Your task to perform on an android device: Show me productivity apps on the Play Store Image 0: 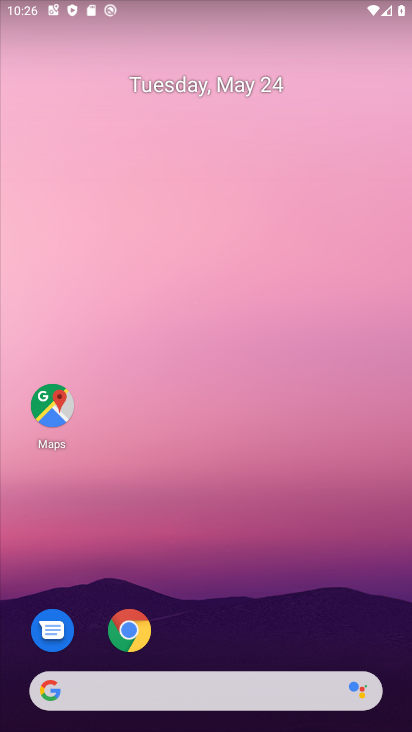
Step 0: press home button
Your task to perform on an android device: Show me productivity apps on the Play Store Image 1: 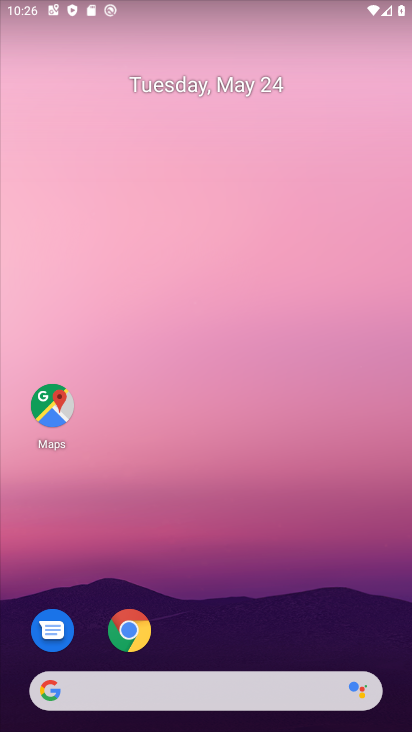
Step 1: drag from (211, 652) to (206, 91)
Your task to perform on an android device: Show me productivity apps on the Play Store Image 2: 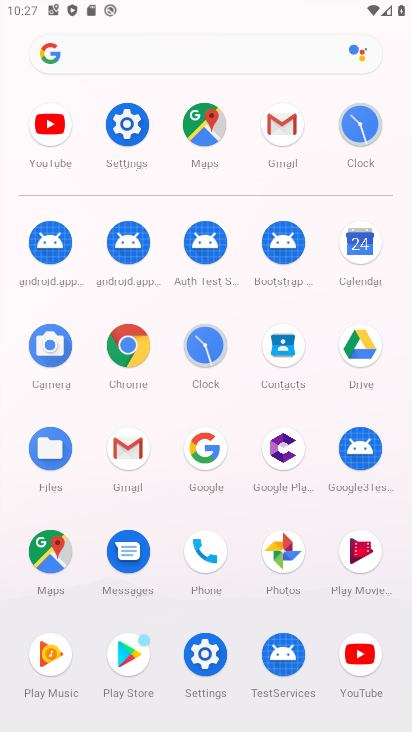
Step 2: click (124, 119)
Your task to perform on an android device: Show me productivity apps on the Play Store Image 3: 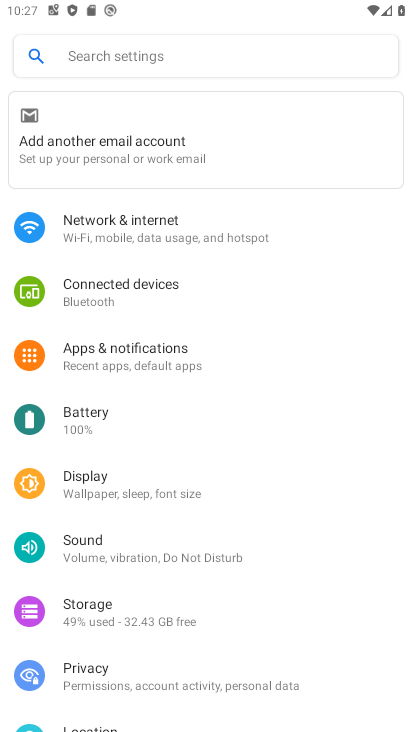
Step 3: press home button
Your task to perform on an android device: Show me productivity apps on the Play Store Image 4: 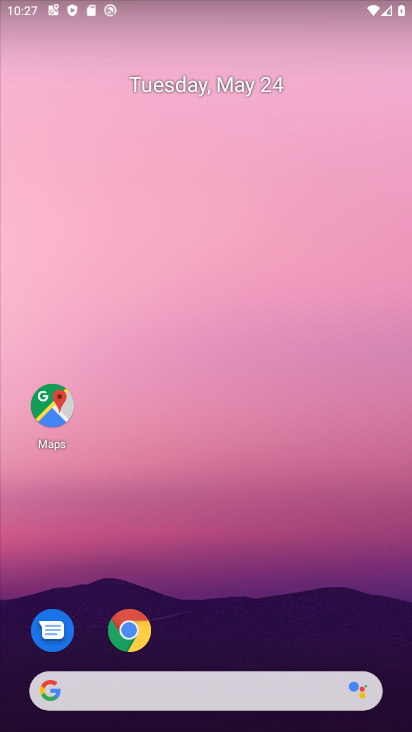
Step 4: drag from (214, 651) to (221, 85)
Your task to perform on an android device: Show me productivity apps on the Play Store Image 5: 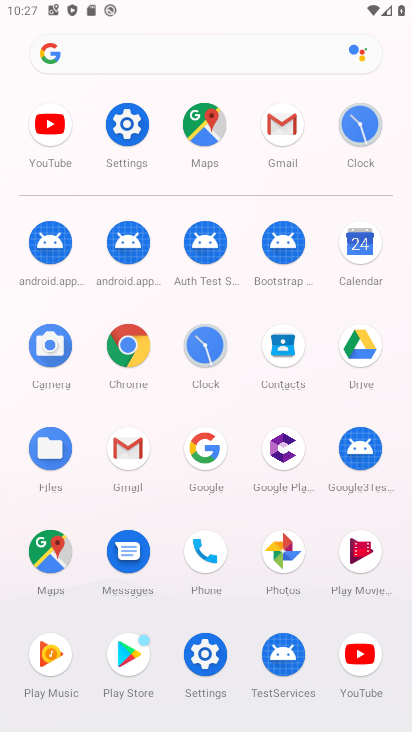
Step 5: click (125, 647)
Your task to perform on an android device: Show me productivity apps on the Play Store Image 6: 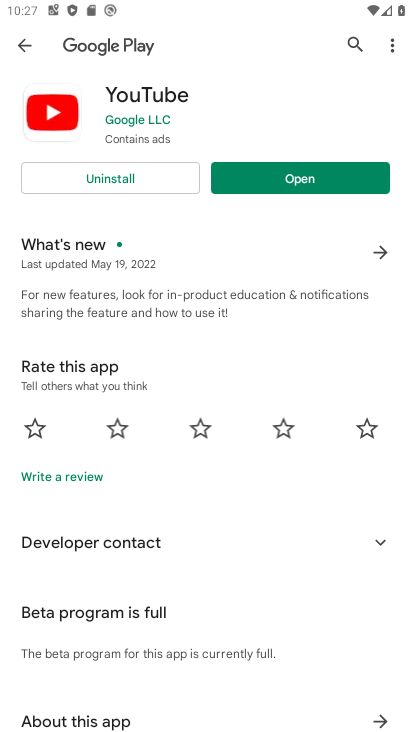
Step 6: click (24, 41)
Your task to perform on an android device: Show me productivity apps on the Play Store Image 7: 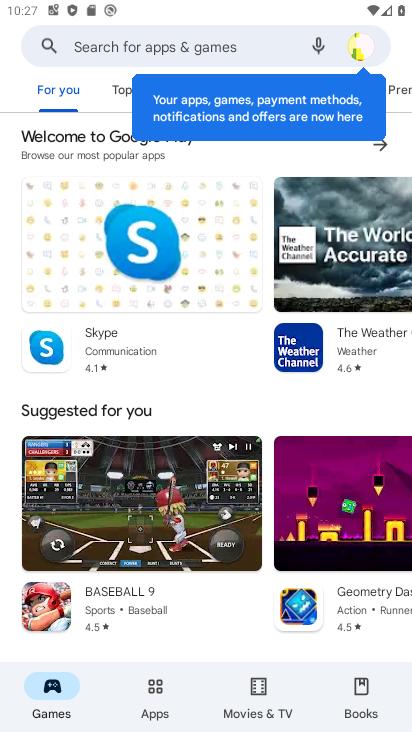
Step 7: click (153, 688)
Your task to perform on an android device: Show me productivity apps on the Play Store Image 8: 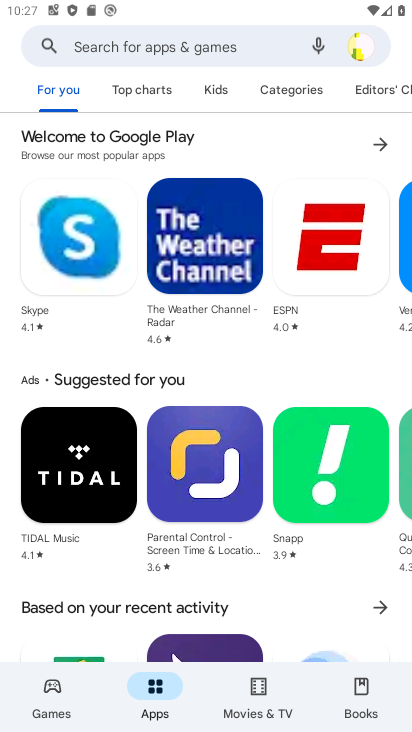
Step 8: click (287, 92)
Your task to perform on an android device: Show me productivity apps on the Play Store Image 9: 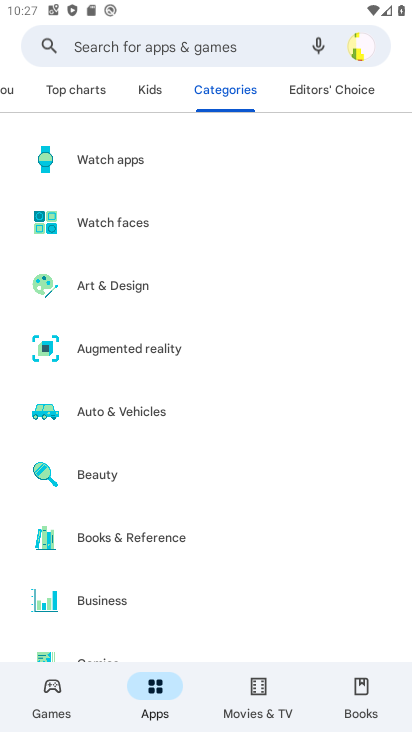
Step 9: drag from (132, 628) to (139, 105)
Your task to perform on an android device: Show me productivity apps on the Play Store Image 10: 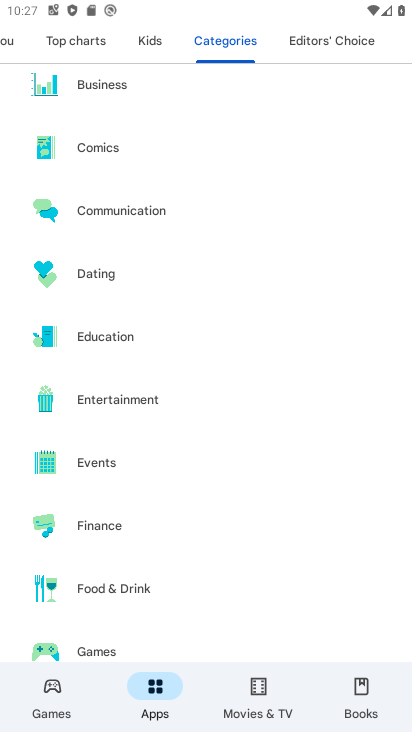
Step 10: drag from (141, 627) to (133, 89)
Your task to perform on an android device: Show me productivity apps on the Play Store Image 11: 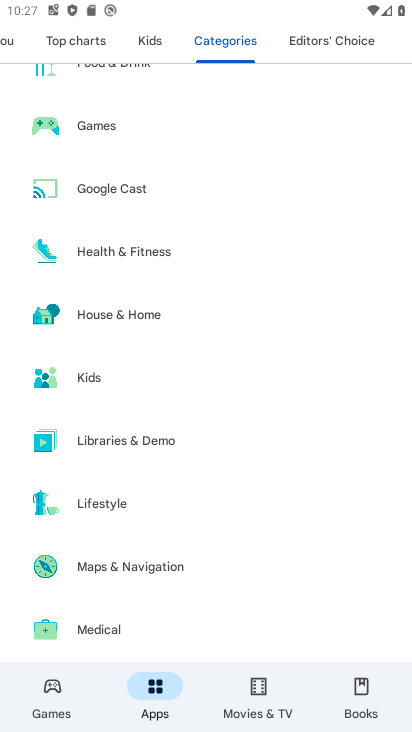
Step 11: drag from (156, 597) to (184, 37)
Your task to perform on an android device: Show me productivity apps on the Play Store Image 12: 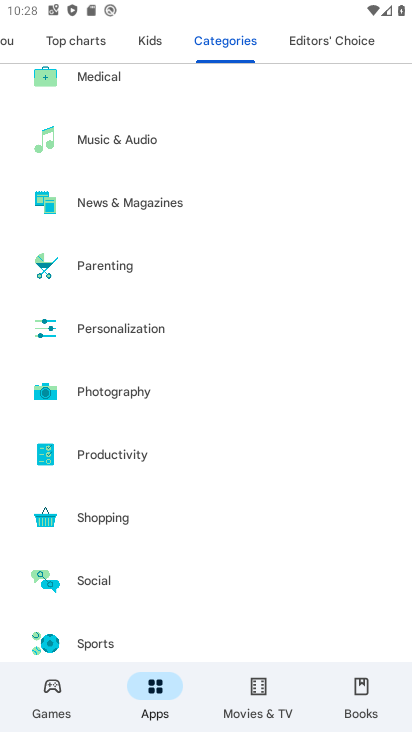
Step 12: click (169, 451)
Your task to perform on an android device: Show me productivity apps on the Play Store Image 13: 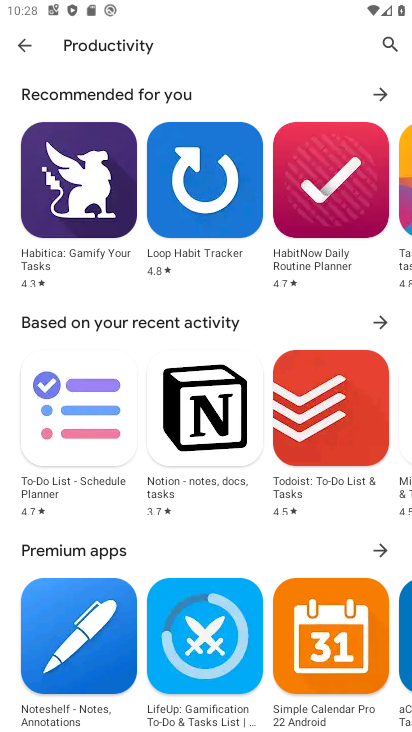
Step 13: task complete